Your task to perform on an android device: make emails show in primary in the gmail app Image 0: 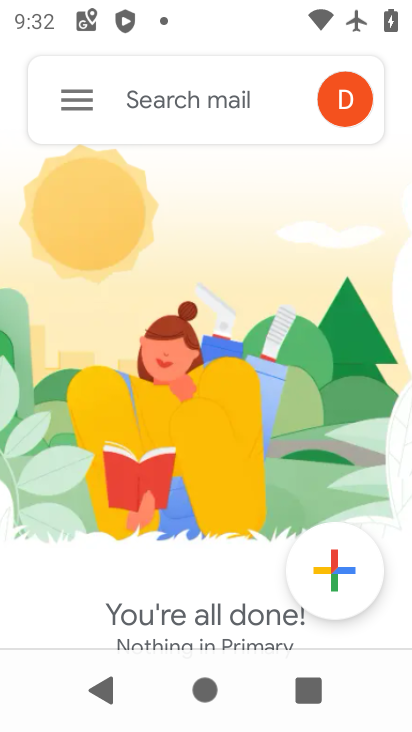
Step 0: press home button
Your task to perform on an android device: make emails show in primary in the gmail app Image 1: 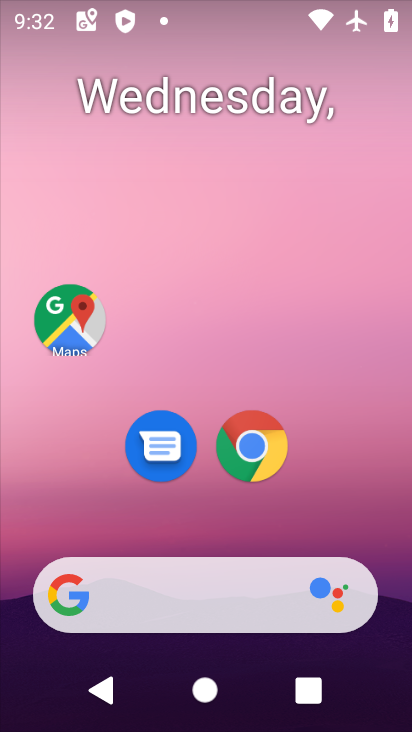
Step 1: drag from (222, 606) to (238, 170)
Your task to perform on an android device: make emails show in primary in the gmail app Image 2: 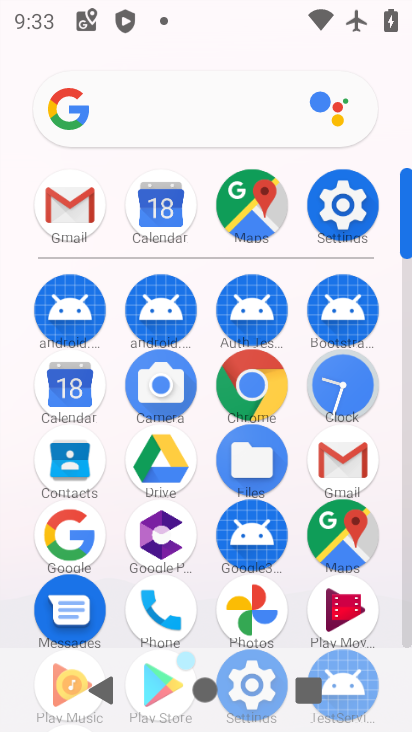
Step 2: click (72, 222)
Your task to perform on an android device: make emails show in primary in the gmail app Image 3: 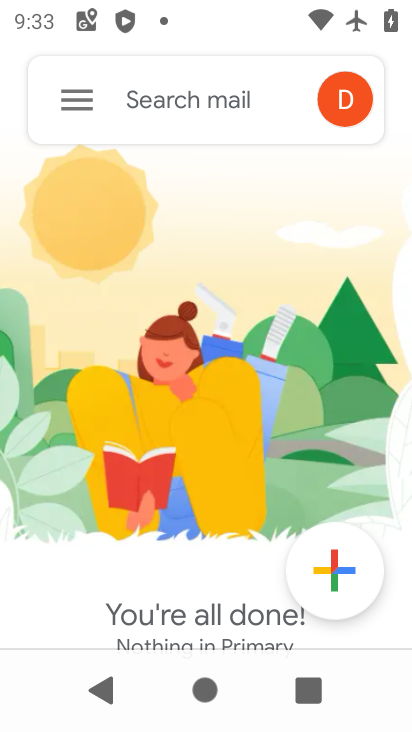
Step 3: click (84, 102)
Your task to perform on an android device: make emails show in primary in the gmail app Image 4: 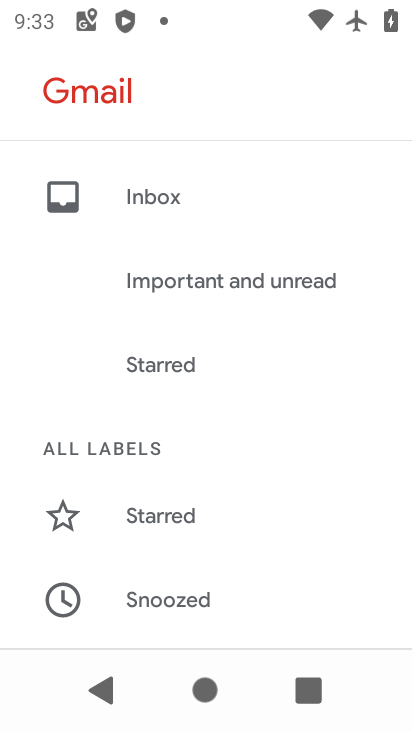
Step 4: drag from (235, 596) to (299, 179)
Your task to perform on an android device: make emails show in primary in the gmail app Image 5: 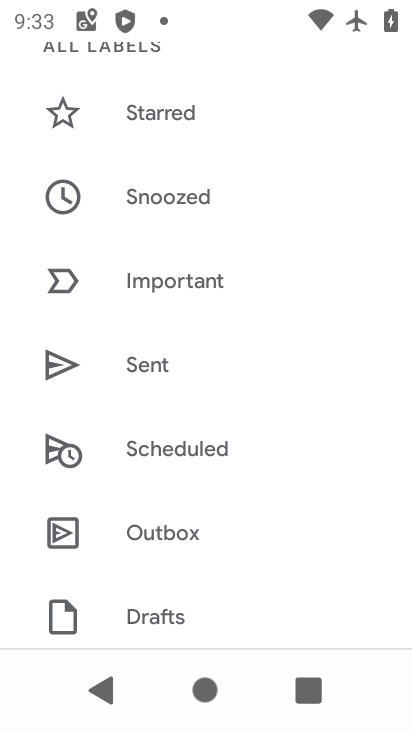
Step 5: drag from (269, 590) to (299, 66)
Your task to perform on an android device: make emails show in primary in the gmail app Image 6: 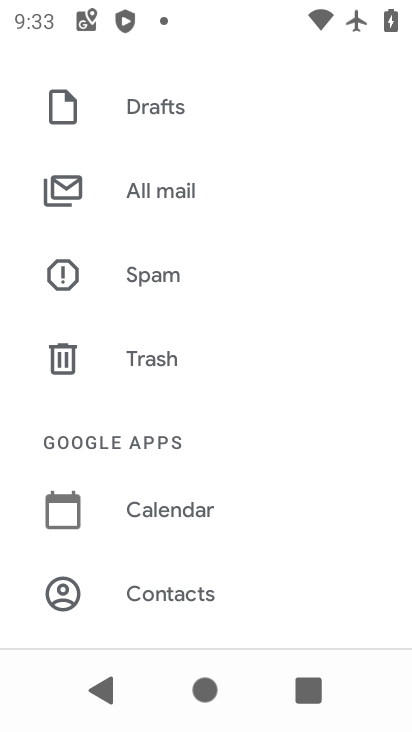
Step 6: drag from (233, 539) to (296, 142)
Your task to perform on an android device: make emails show in primary in the gmail app Image 7: 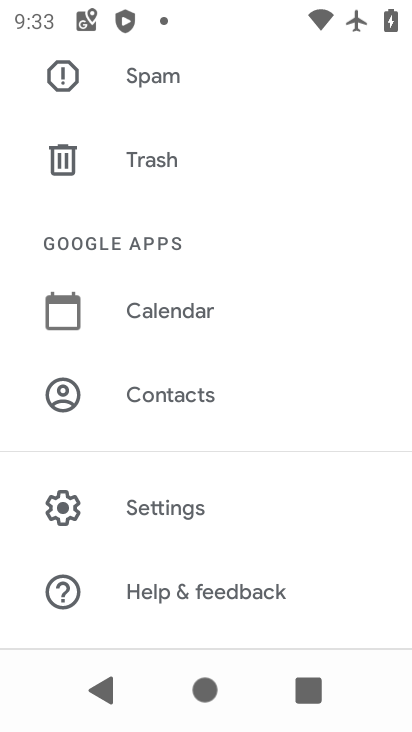
Step 7: click (147, 488)
Your task to perform on an android device: make emails show in primary in the gmail app Image 8: 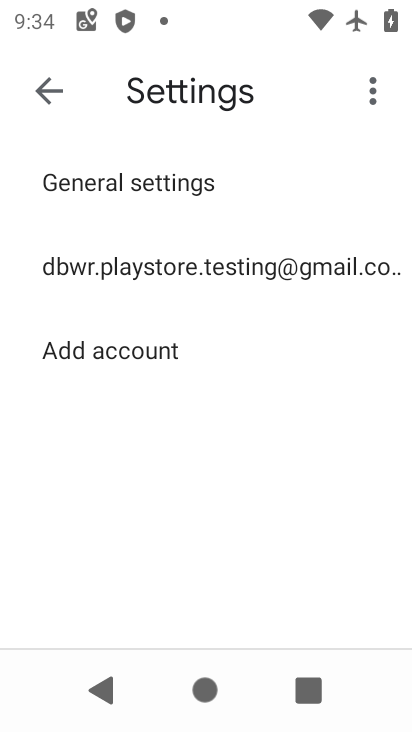
Step 8: click (280, 271)
Your task to perform on an android device: make emails show in primary in the gmail app Image 9: 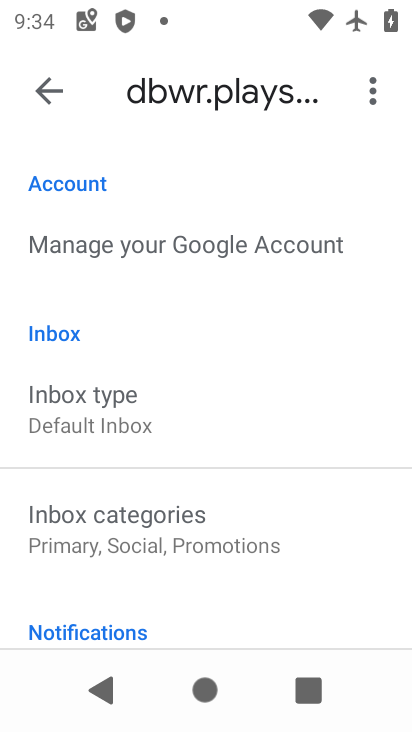
Step 9: click (165, 547)
Your task to perform on an android device: make emails show in primary in the gmail app Image 10: 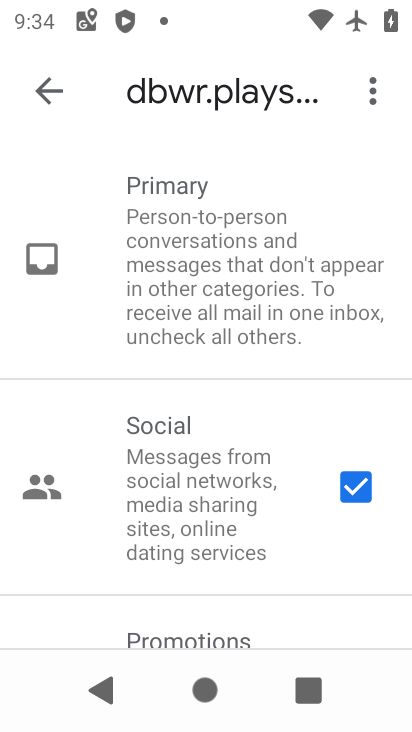
Step 10: click (361, 486)
Your task to perform on an android device: make emails show in primary in the gmail app Image 11: 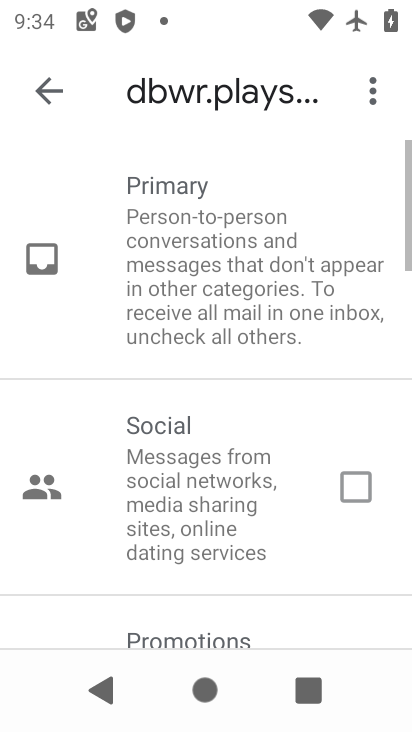
Step 11: drag from (171, 538) to (341, 146)
Your task to perform on an android device: make emails show in primary in the gmail app Image 12: 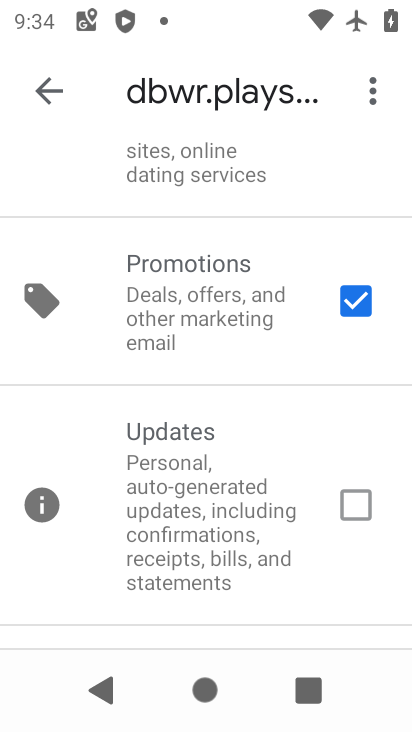
Step 12: click (359, 305)
Your task to perform on an android device: make emails show in primary in the gmail app Image 13: 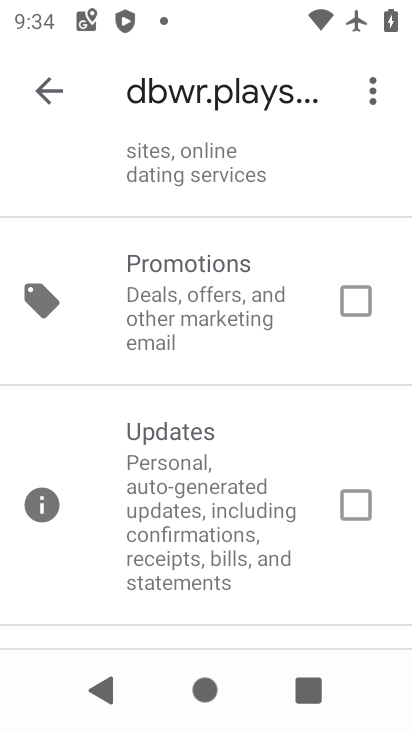
Step 13: drag from (235, 179) to (173, 617)
Your task to perform on an android device: make emails show in primary in the gmail app Image 14: 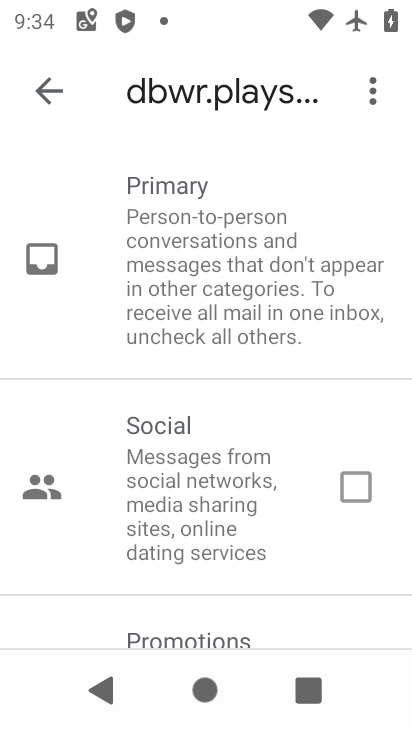
Step 14: click (50, 91)
Your task to perform on an android device: make emails show in primary in the gmail app Image 15: 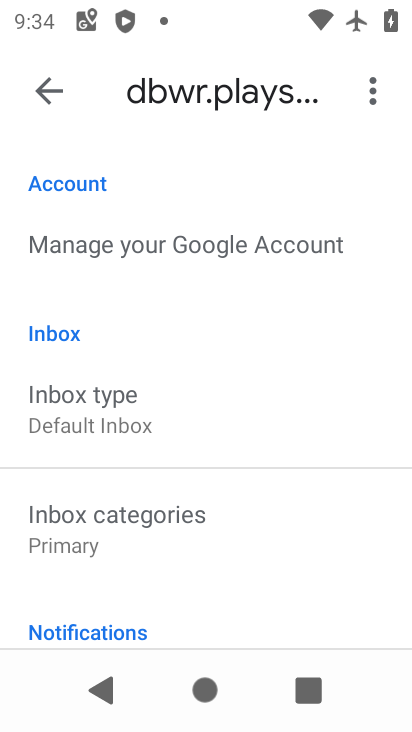
Step 15: task complete